Your task to perform on an android device: Go to sound settings Image 0: 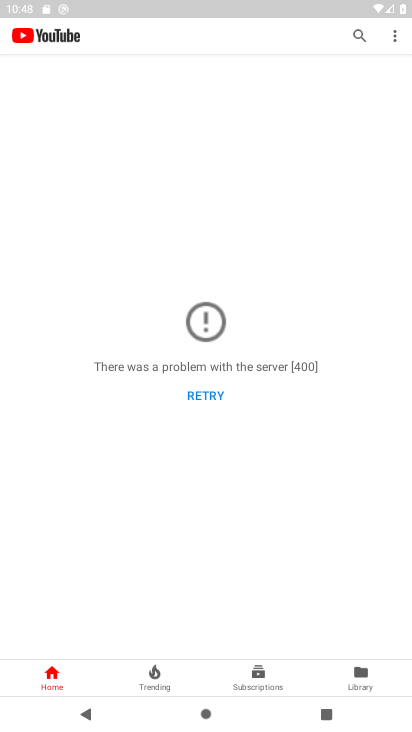
Step 0: press home button
Your task to perform on an android device: Go to sound settings Image 1: 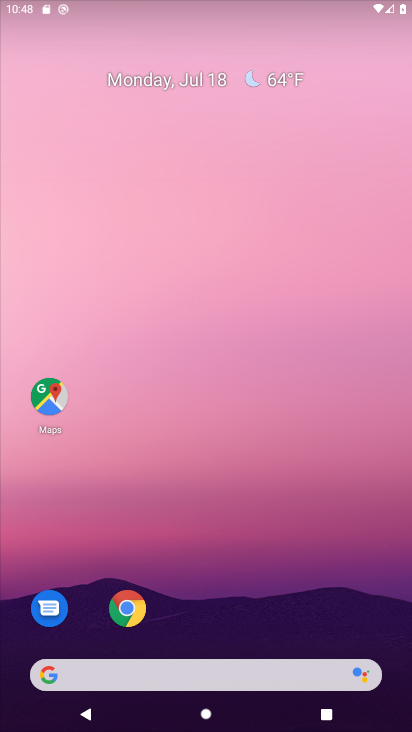
Step 1: drag from (68, 515) to (243, 112)
Your task to perform on an android device: Go to sound settings Image 2: 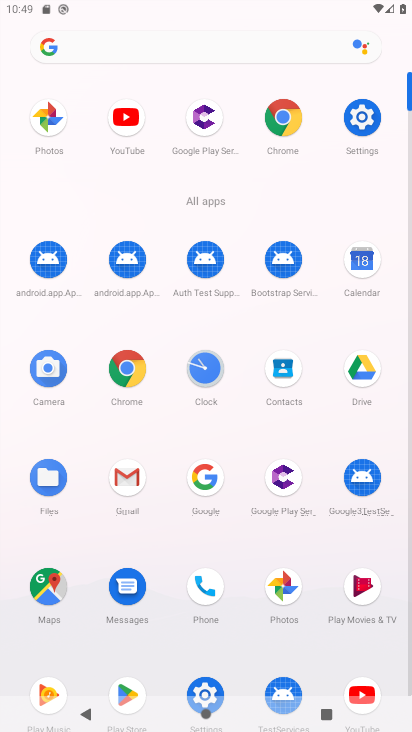
Step 2: click (365, 113)
Your task to perform on an android device: Go to sound settings Image 3: 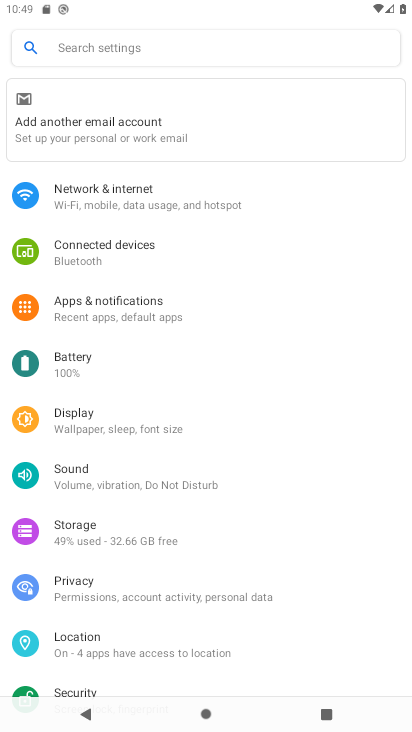
Step 3: click (109, 486)
Your task to perform on an android device: Go to sound settings Image 4: 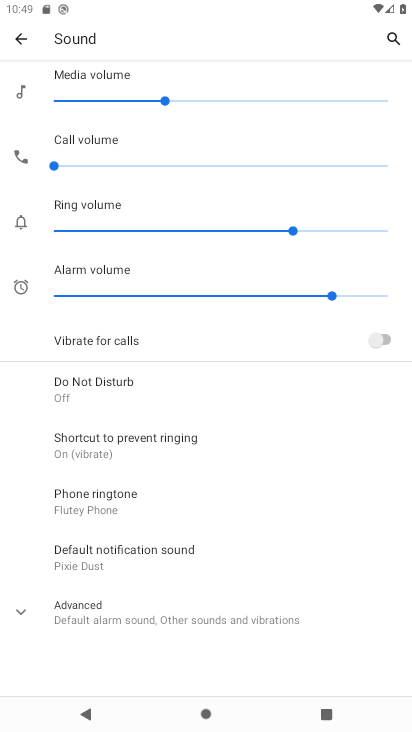
Step 4: task complete